Your task to perform on an android device: Open the Play Movies app and select the watchlist tab. Image 0: 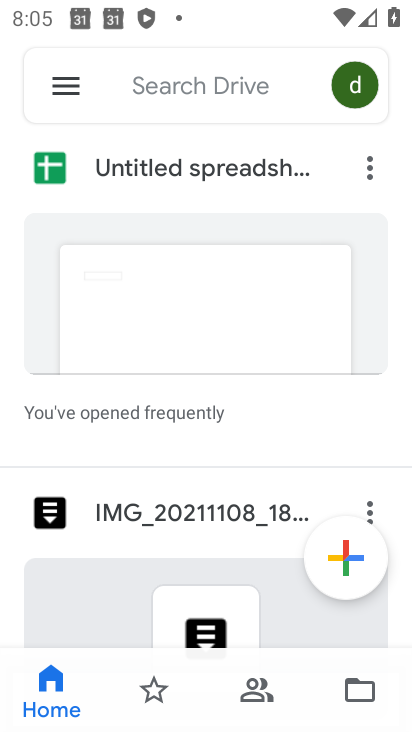
Step 0: press home button
Your task to perform on an android device: Open the Play Movies app and select the watchlist tab. Image 1: 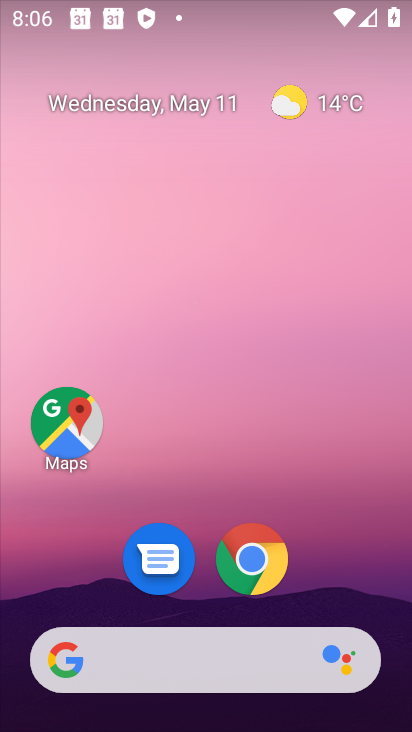
Step 1: drag from (330, 614) to (286, 8)
Your task to perform on an android device: Open the Play Movies app and select the watchlist tab. Image 2: 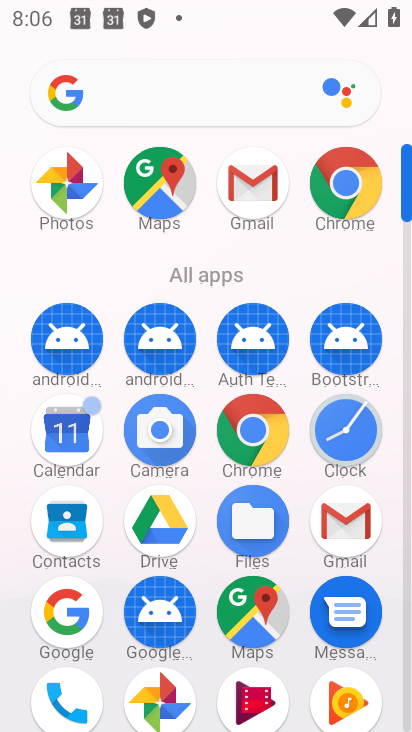
Step 2: click (258, 700)
Your task to perform on an android device: Open the Play Movies app and select the watchlist tab. Image 3: 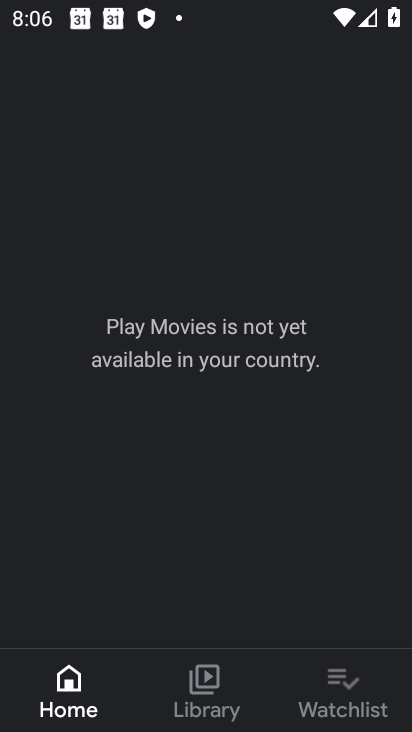
Step 3: click (343, 680)
Your task to perform on an android device: Open the Play Movies app and select the watchlist tab. Image 4: 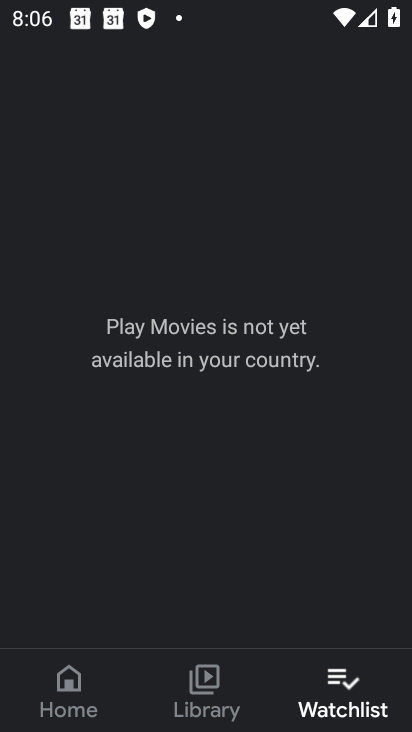
Step 4: task complete